Your task to perform on an android device: What's the weather? Image 0: 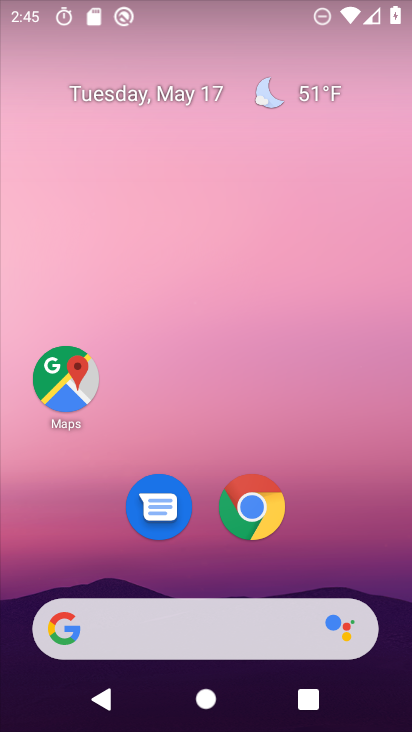
Step 0: drag from (187, 575) to (219, 180)
Your task to perform on an android device: What's the weather? Image 1: 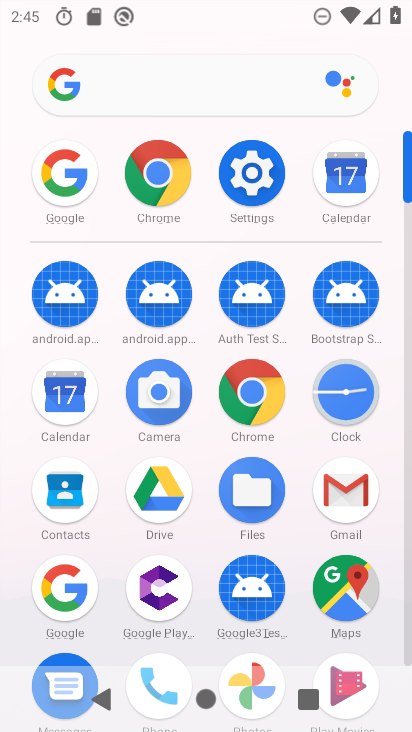
Step 1: click (75, 585)
Your task to perform on an android device: What's the weather? Image 2: 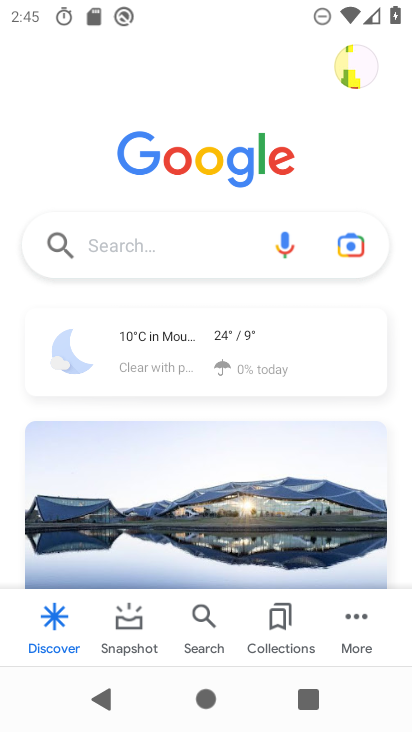
Step 2: click (139, 253)
Your task to perform on an android device: What's the weather? Image 3: 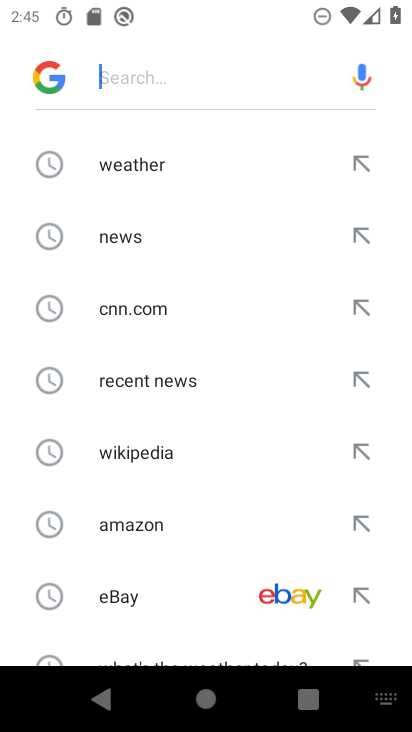
Step 3: click (171, 167)
Your task to perform on an android device: What's the weather? Image 4: 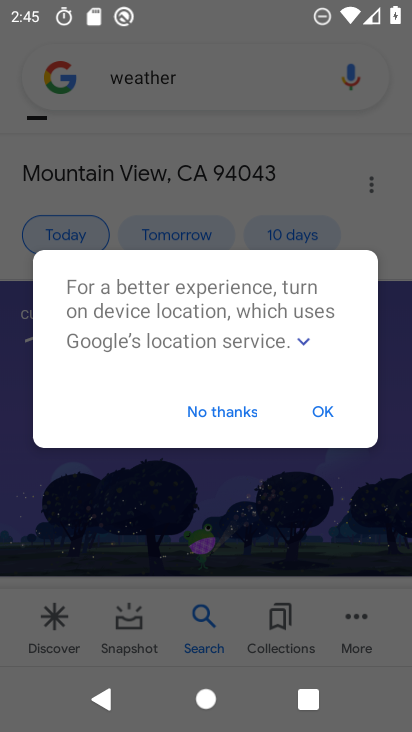
Step 4: click (249, 405)
Your task to perform on an android device: What's the weather? Image 5: 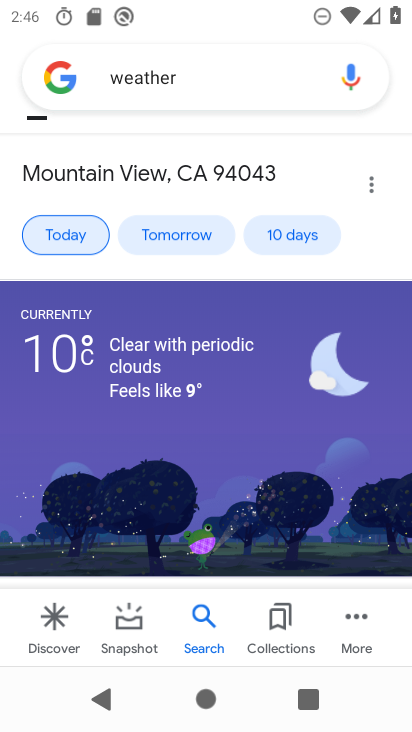
Step 5: task complete